Your task to perform on an android device: turn on airplane mode Image 0: 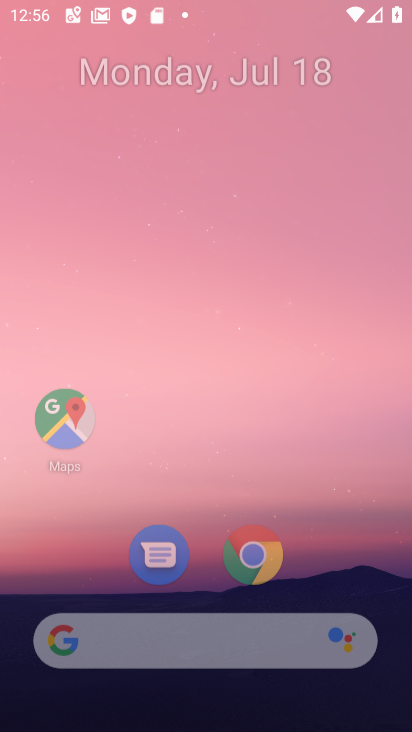
Step 0: press home button
Your task to perform on an android device: turn on airplane mode Image 1: 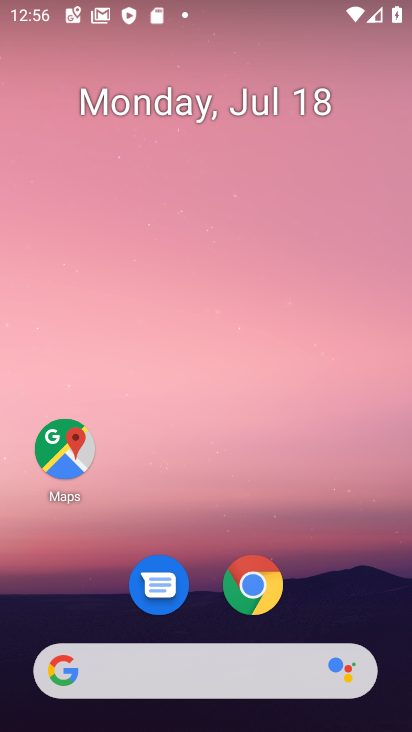
Step 1: drag from (222, 662) to (153, 9)
Your task to perform on an android device: turn on airplane mode Image 2: 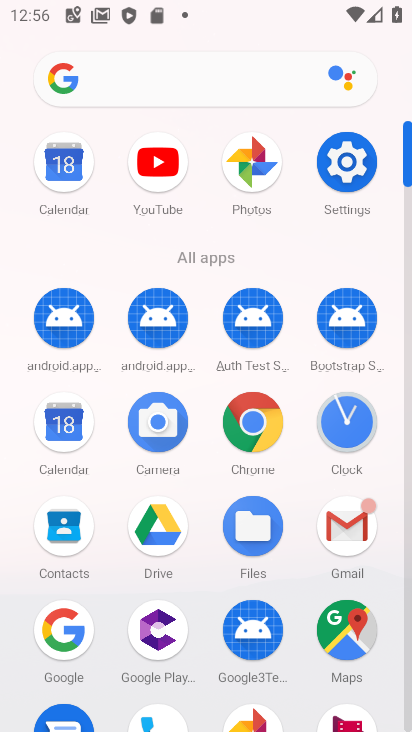
Step 2: click (344, 173)
Your task to perform on an android device: turn on airplane mode Image 3: 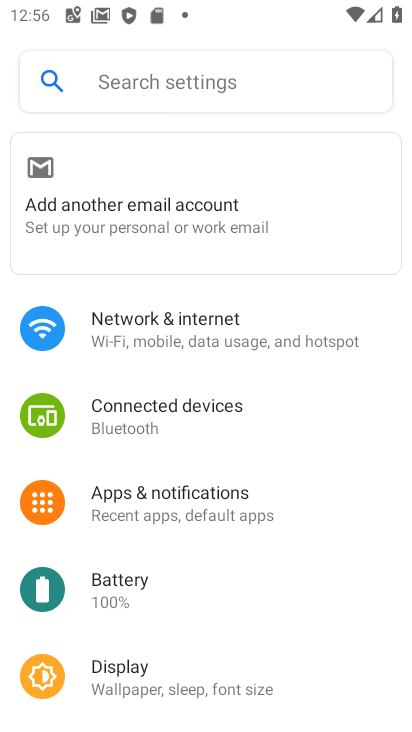
Step 3: click (202, 332)
Your task to perform on an android device: turn on airplane mode Image 4: 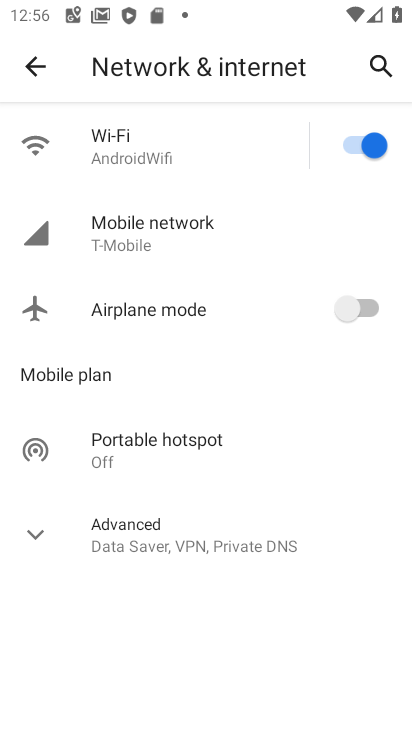
Step 4: click (375, 304)
Your task to perform on an android device: turn on airplane mode Image 5: 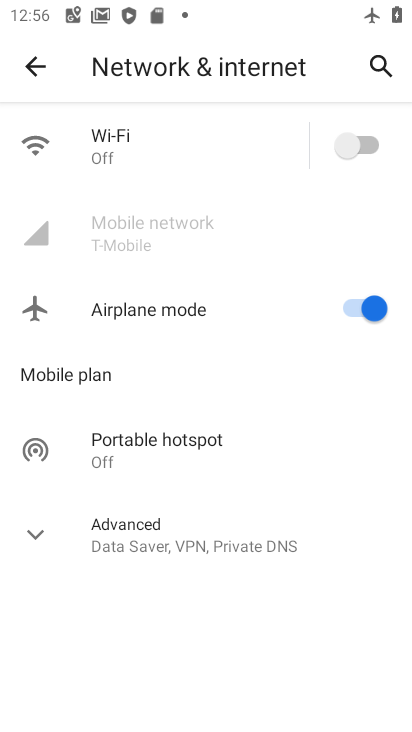
Step 5: task complete